Your task to perform on an android device: Add dell xps to the cart on walmart.com, then select checkout. Image 0: 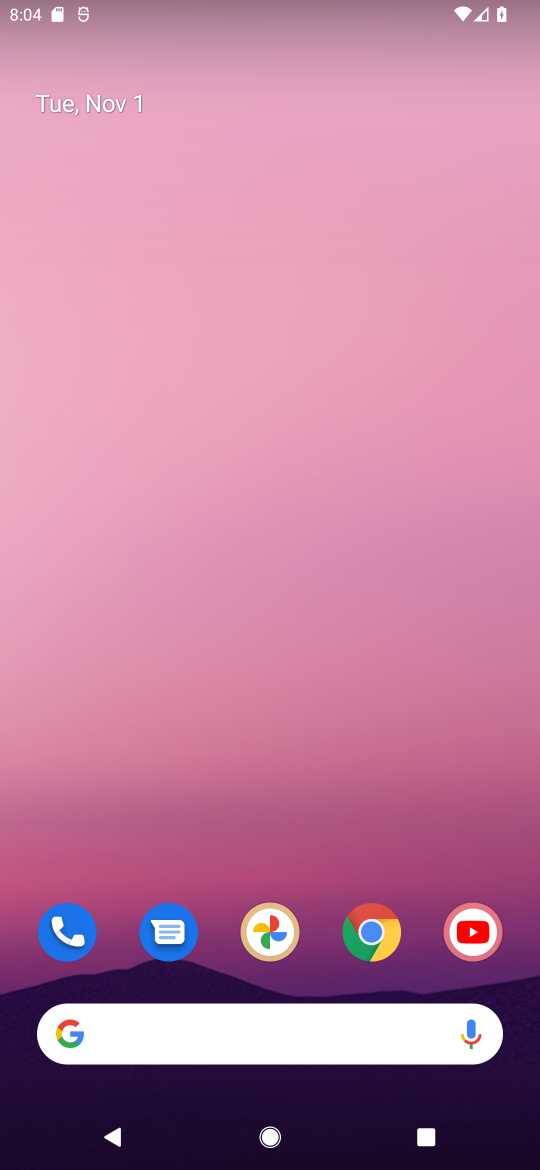
Step 0: click (368, 938)
Your task to perform on an android device: Add dell xps to the cart on walmart.com, then select checkout. Image 1: 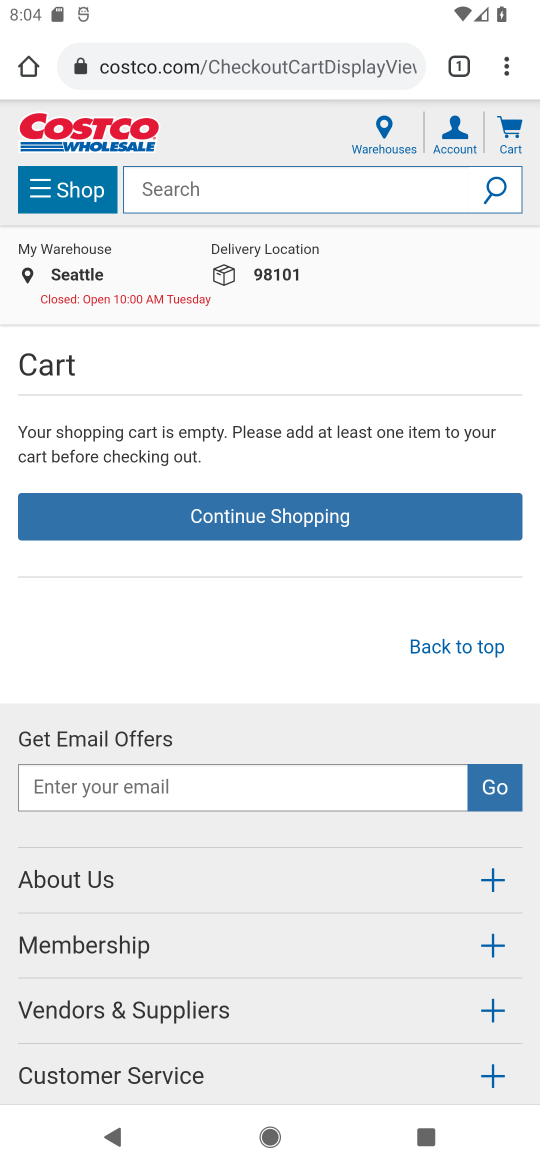
Step 1: click (178, 55)
Your task to perform on an android device: Add dell xps to the cart on walmart.com, then select checkout. Image 2: 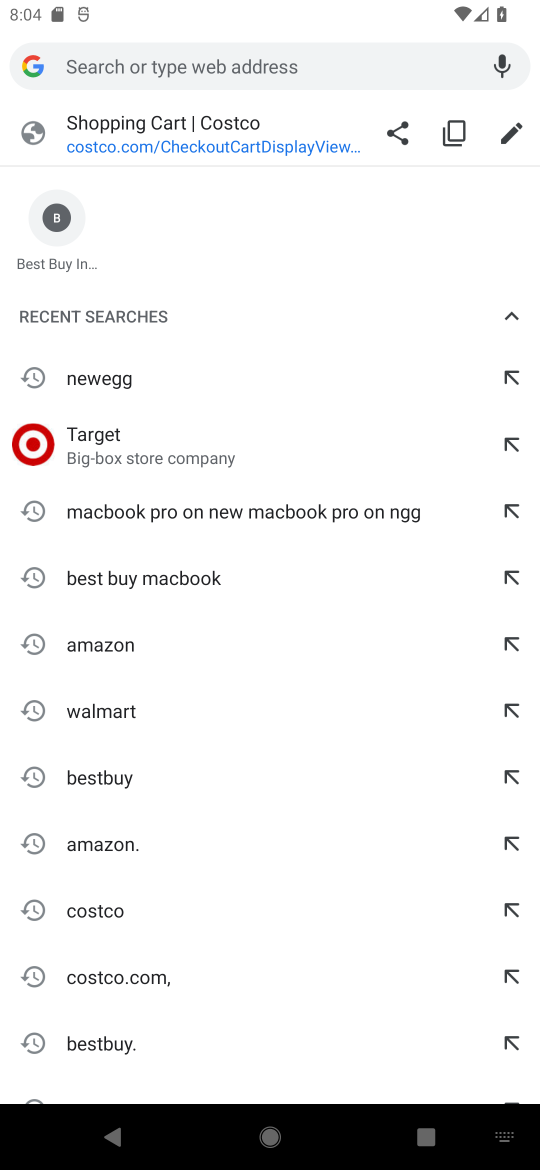
Step 2: type " walmart.com"
Your task to perform on an android device: Add dell xps to the cart on walmart.com, then select checkout. Image 3: 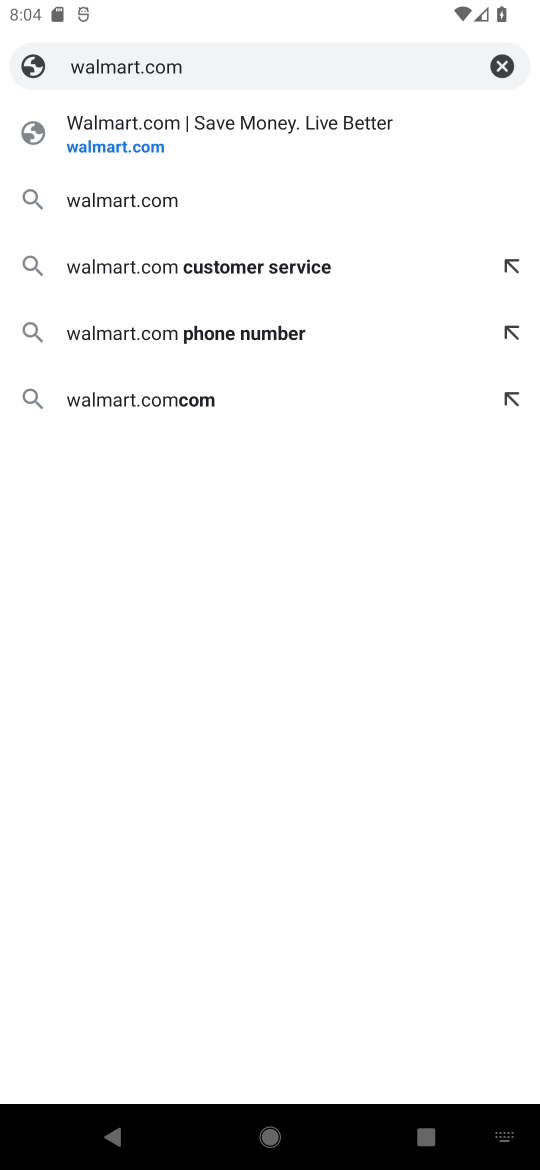
Step 3: click (143, 144)
Your task to perform on an android device: Add dell xps to the cart on walmart.com, then select checkout. Image 4: 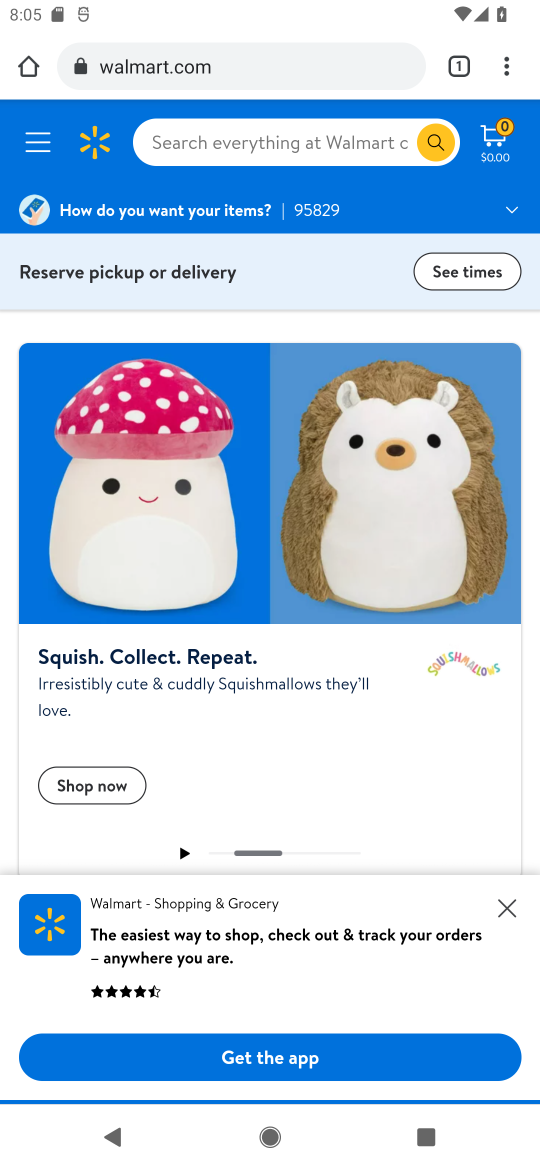
Step 4: click (240, 129)
Your task to perform on an android device: Add dell xps to the cart on walmart.com, then select checkout. Image 5: 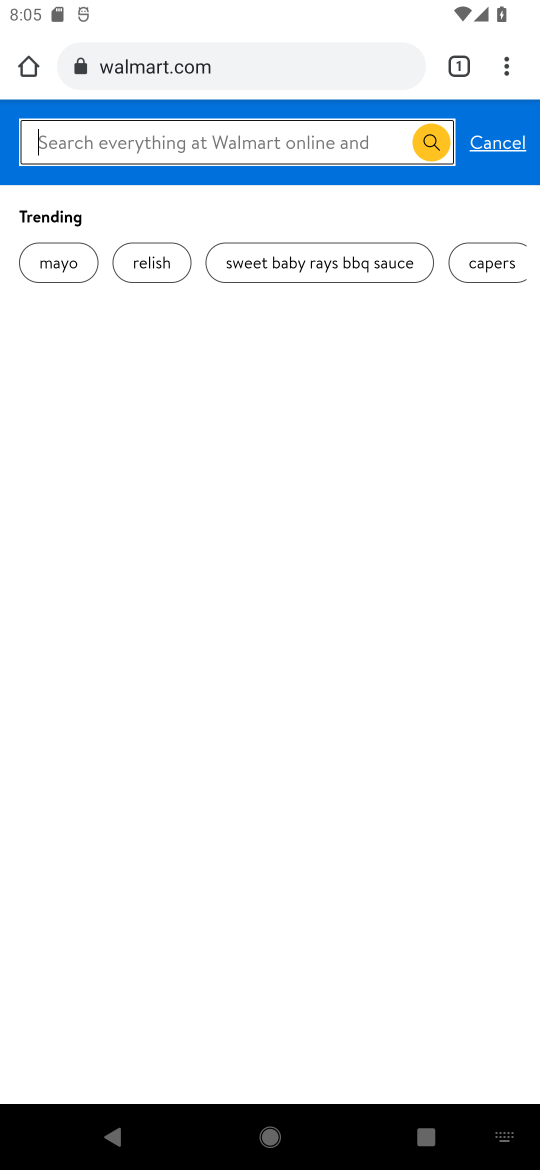
Step 5: type "dell xps"
Your task to perform on an android device: Add dell xps to the cart on walmart.com, then select checkout. Image 6: 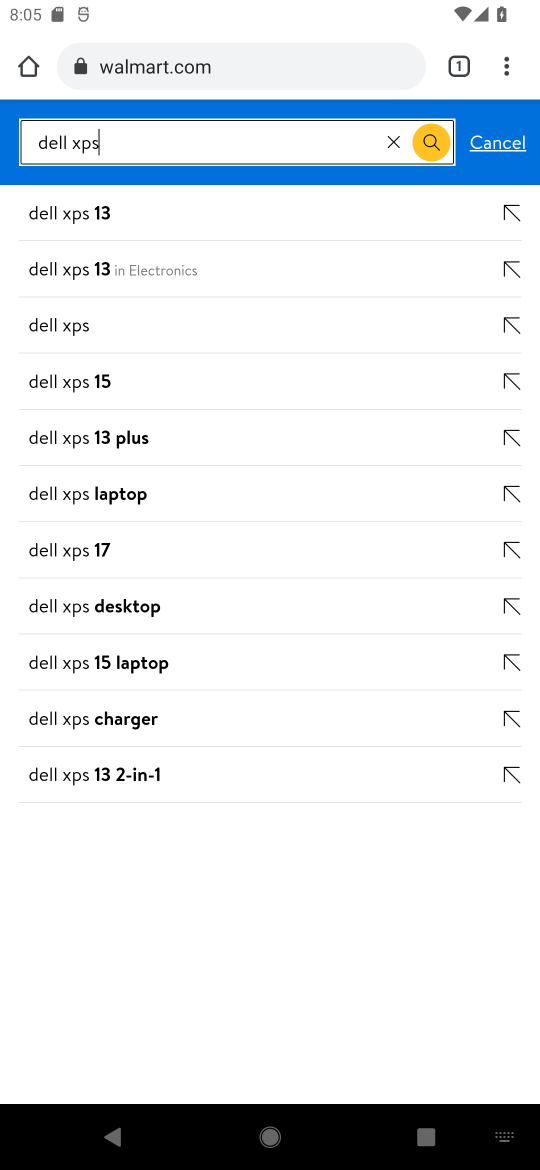
Step 6: click (43, 333)
Your task to perform on an android device: Add dell xps to the cart on walmart.com, then select checkout. Image 7: 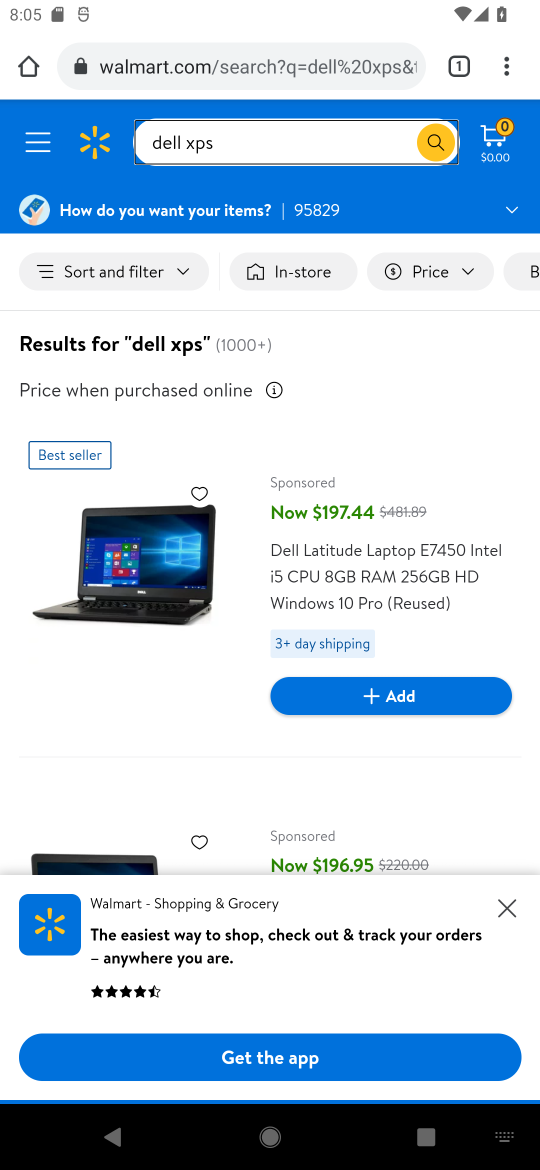
Step 7: click (432, 148)
Your task to perform on an android device: Add dell xps to the cart on walmart.com, then select checkout. Image 8: 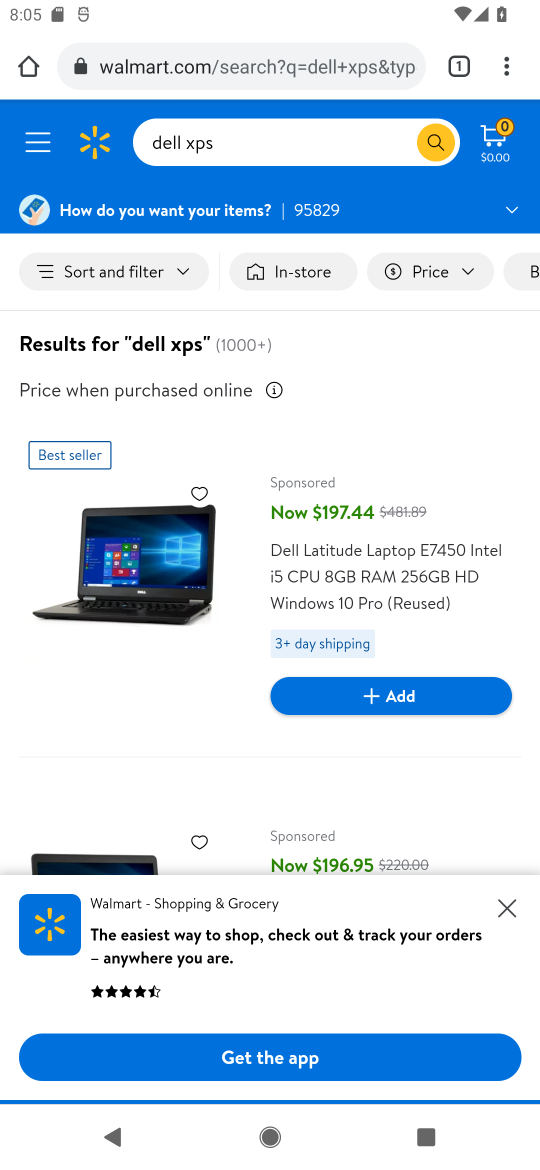
Step 8: drag from (171, 719) to (223, 342)
Your task to perform on an android device: Add dell xps to the cart on walmart.com, then select checkout. Image 9: 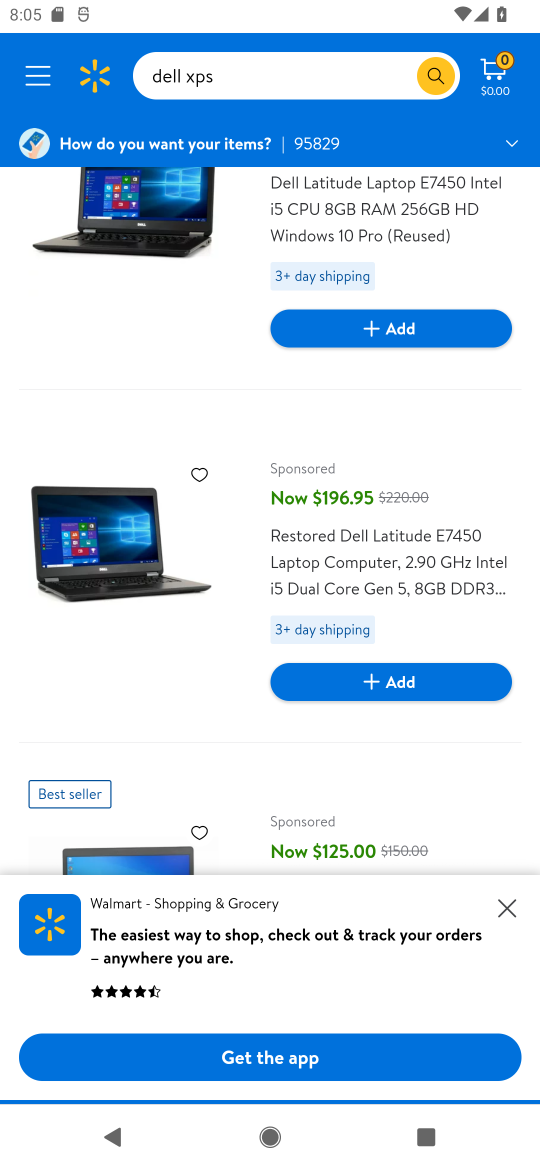
Step 9: drag from (134, 657) to (163, 388)
Your task to perform on an android device: Add dell xps to the cart on walmart.com, then select checkout. Image 10: 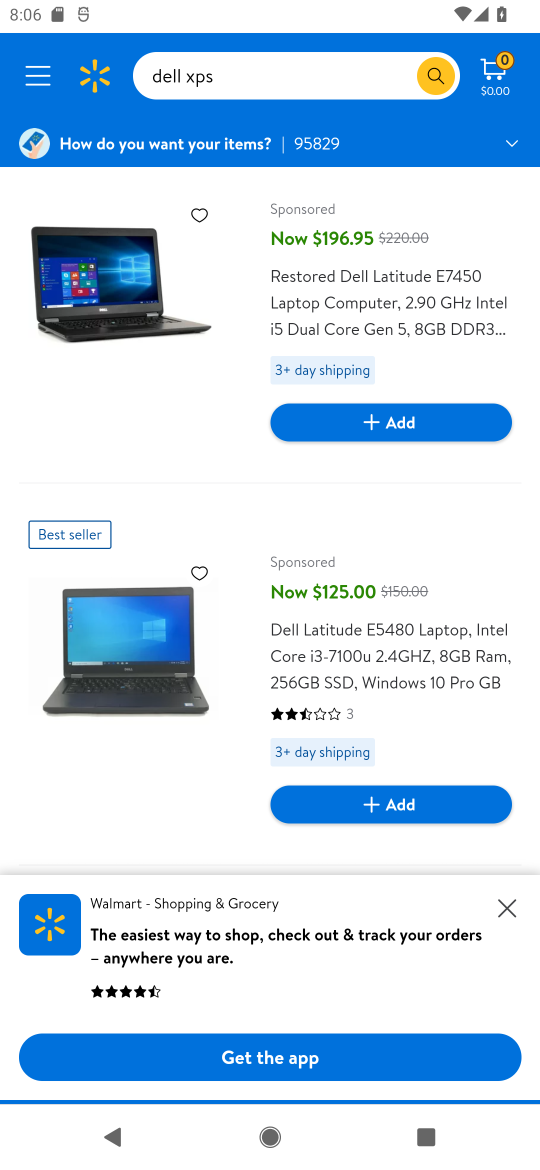
Step 10: drag from (152, 481) to (140, 875)
Your task to perform on an android device: Add dell xps to the cart on walmart.com, then select checkout. Image 11: 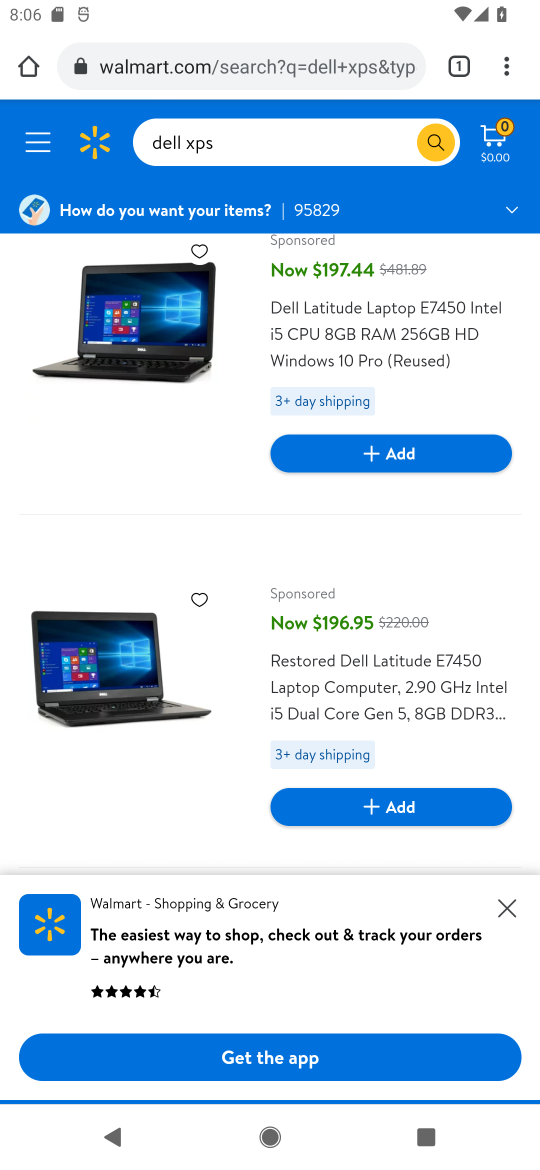
Step 11: drag from (161, 362) to (136, 718)
Your task to perform on an android device: Add dell xps to the cart on walmart.com, then select checkout. Image 12: 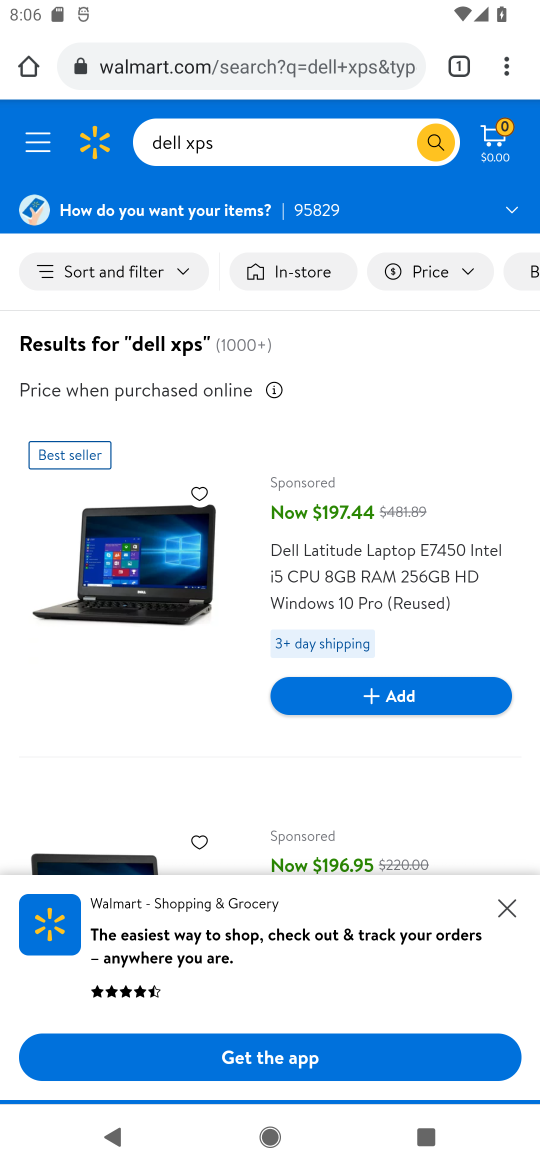
Step 12: click (314, 590)
Your task to perform on an android device: Add dell xps to the cart on walmart.com, then select checkout. Image 13: 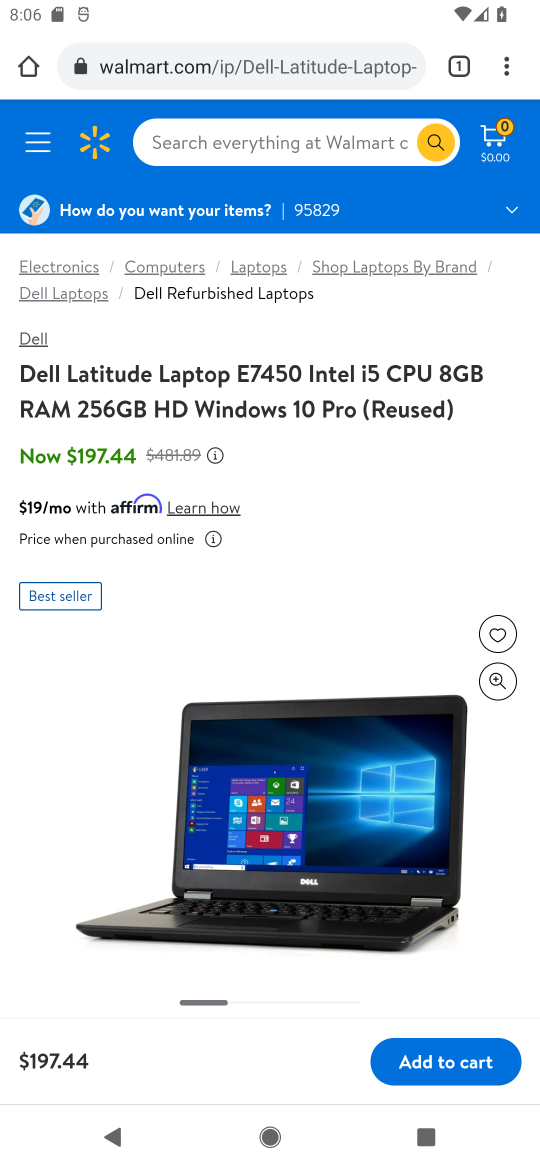
Step 13: drag from (183, 696) to (193, 323)
Your task to perform on an android device: Add dell xps to the cart on walmart.com, then select checkout. Image 14: 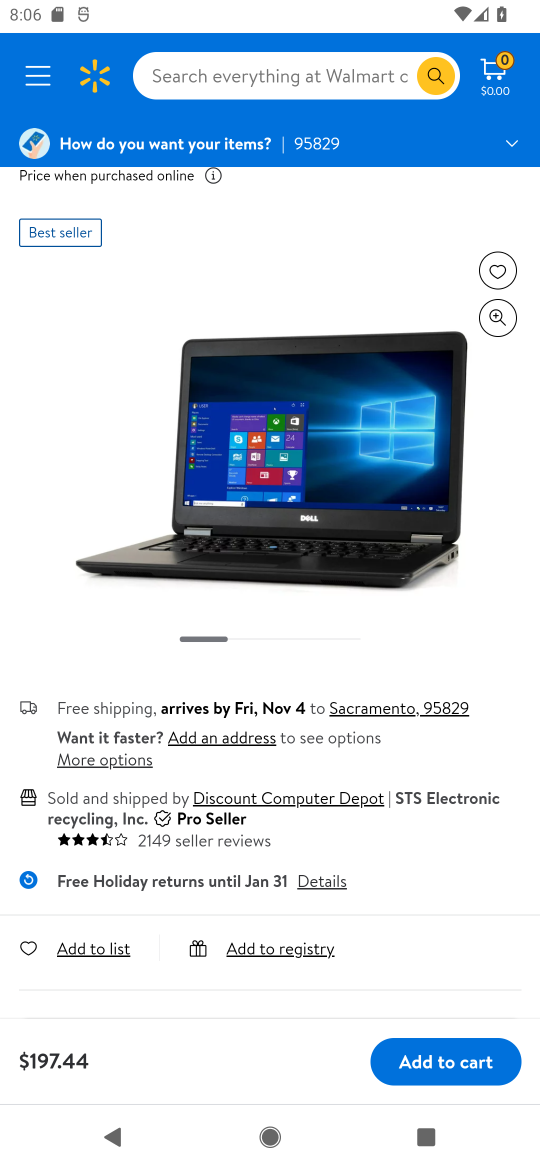
Step 14: click (456, 1061)
Your task to perform on an android device: Add dell xps to the cart on walmart.com, then select checkout. Image 15: 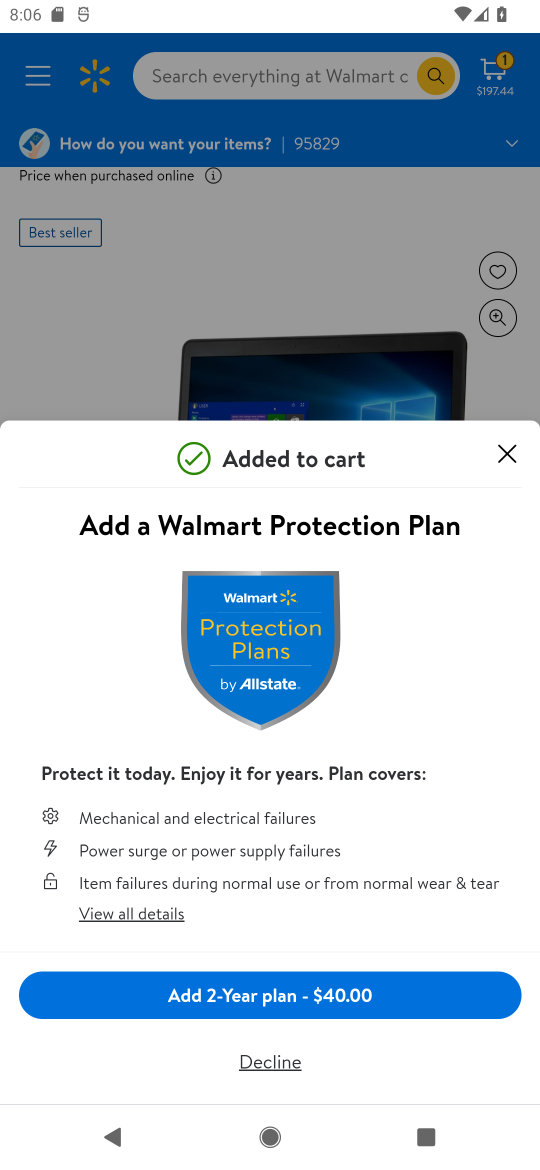
Step 15: click (504, 453)
Your task to perform on an android device: Add dell xps to the cart on walmart.com, then select checkout. Image 16: 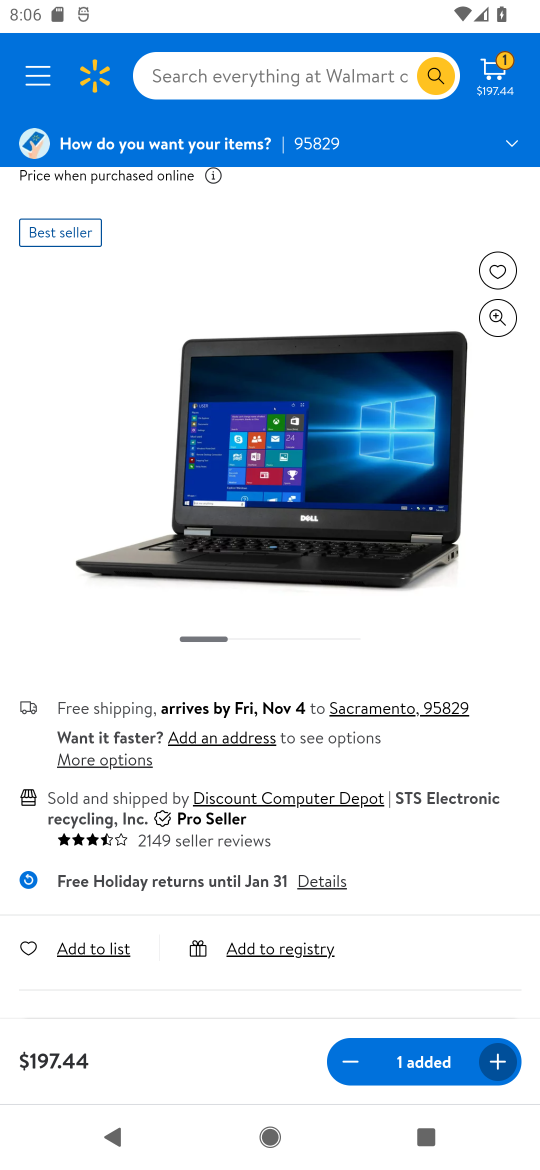
Step 16: click (485, 75)
Your task to perform on an android device: Add dell xps to the cart on walmart.com, then select checkout. Image 17: 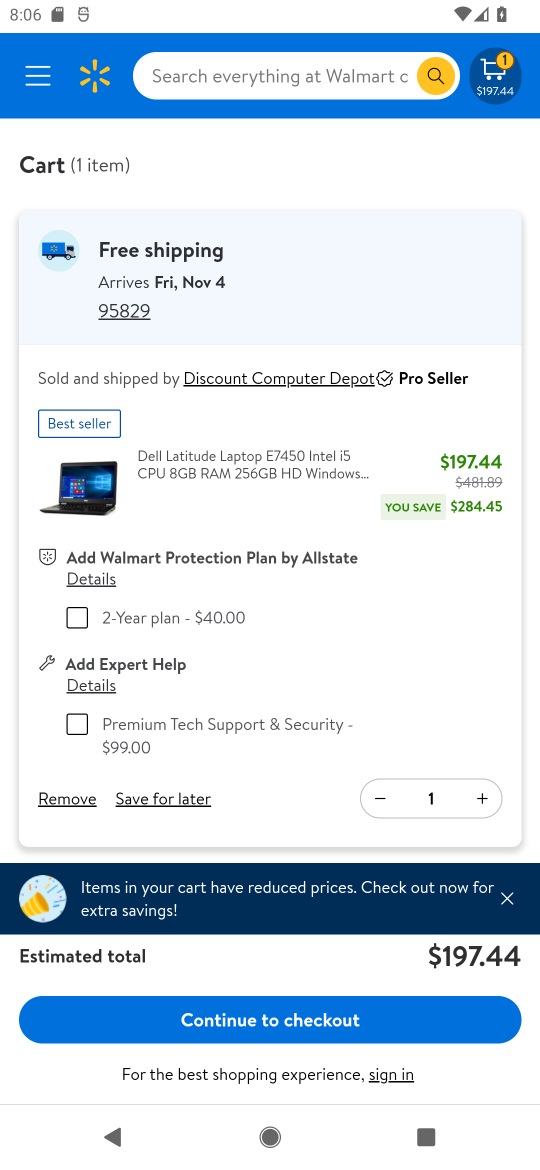
Step 17: click (230, 1023)
Your task to perform on an android device: Add dell xps to the cart on walmart.com, then select checkout. Image 18: 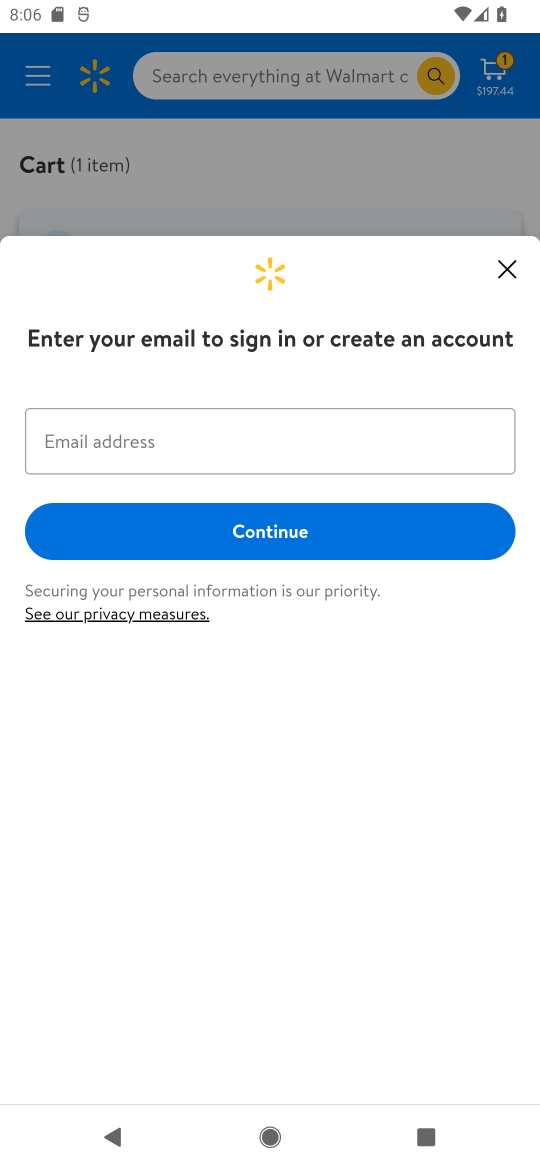
Step 18: task complete